Your task to perform on an android device: Open internet settings Image 0: 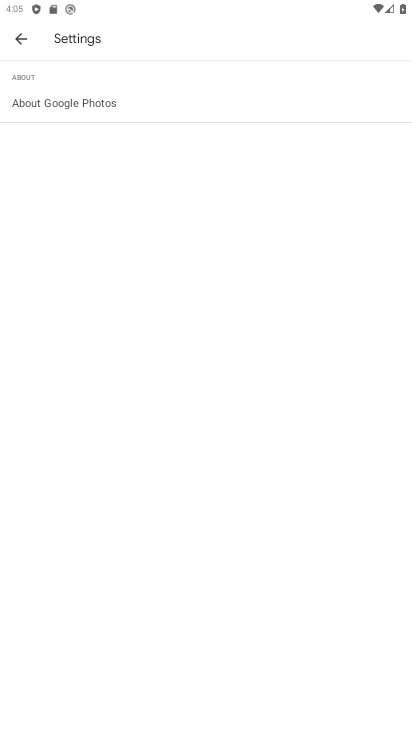
Step 0: press home button
Your task to perform on an android device: Open internet settings Image 1: 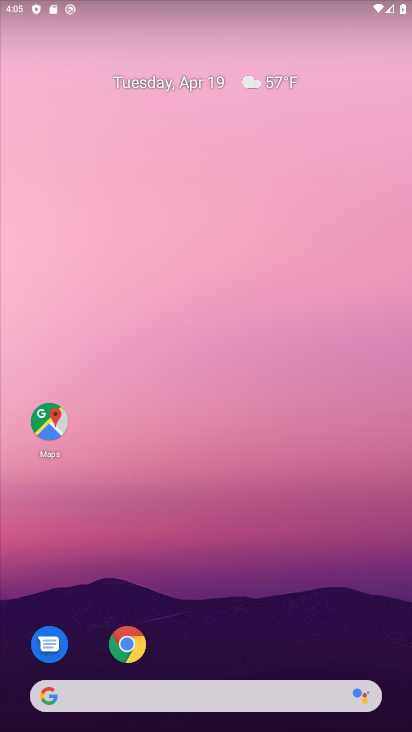
Step 1: drag from (332, 457) to (342, 69)
Your task to perform on an android device: Open internet settings Image 2: 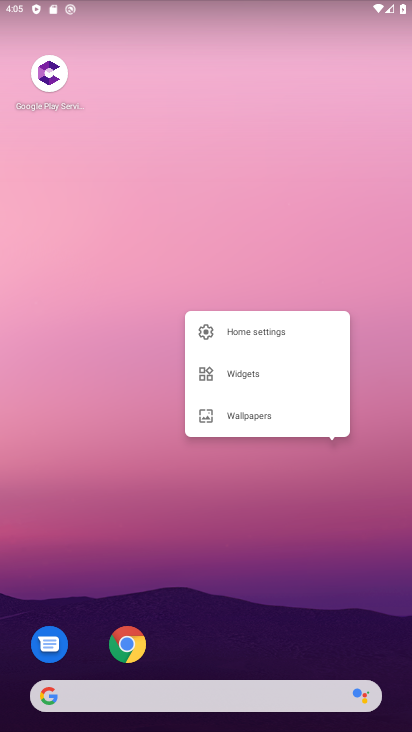
Step 2: click (320, 546)
Your task to perform on an android device: Open internet settings Image 3: 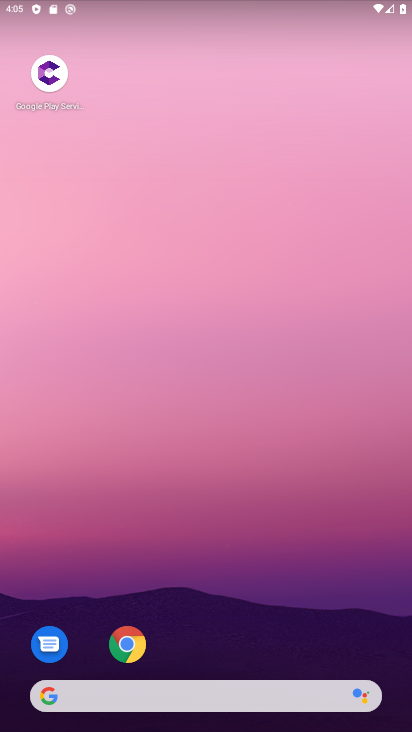
Step 3: click (389, 148)
Your task to perform on an android device: Open internet settings Image 4: 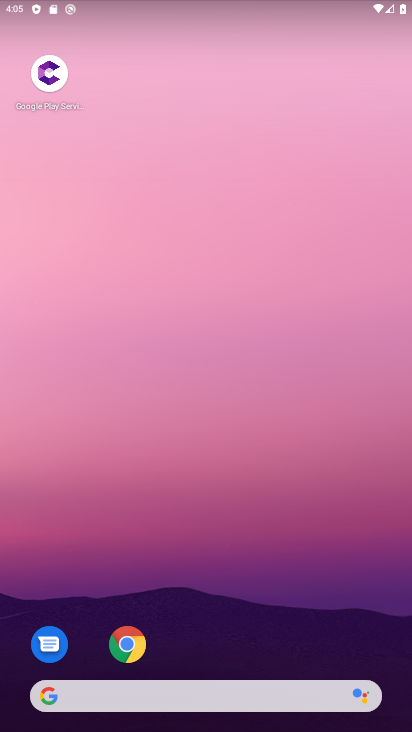
Step 4: click (330, 99)
Your task to perform on an android device: Open internet settings Image 5: 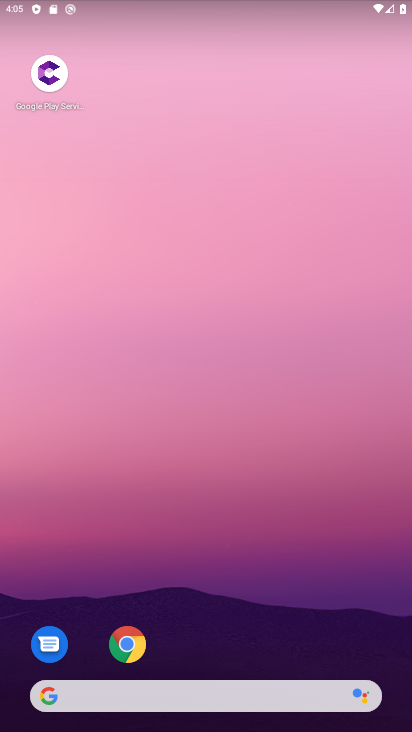
Step 5: drag from (299, 441) to (263, 28)
Your task to perform on an android device: Open internet settings Image 6: 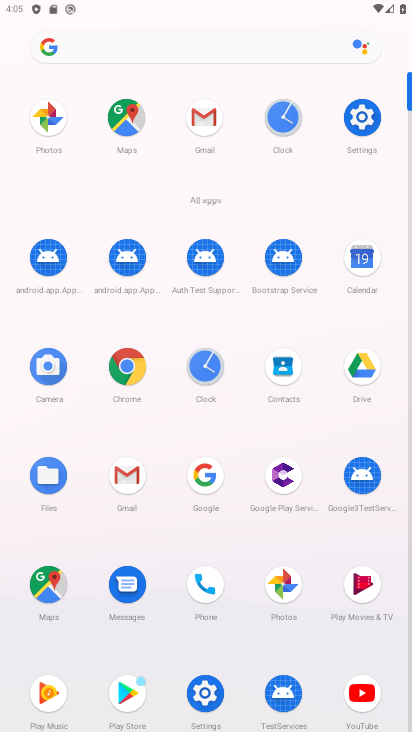
Step 6: click (366, 123)
Your task to perform on an android device: Open internet settings Image 7: 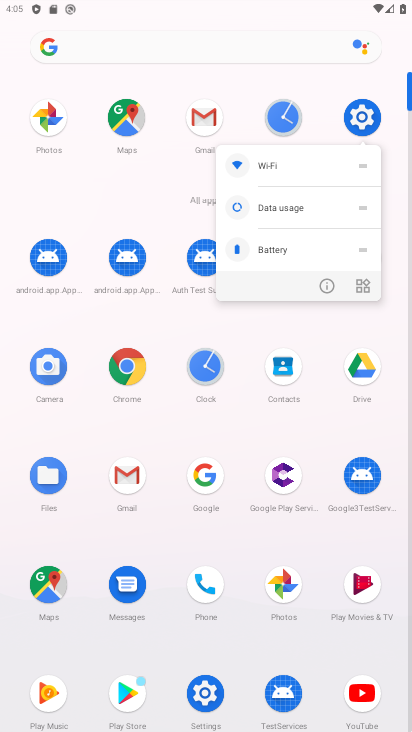
Step 7: click (365, 117)
Your task to perform on an android device: Open internet settings Image 8: 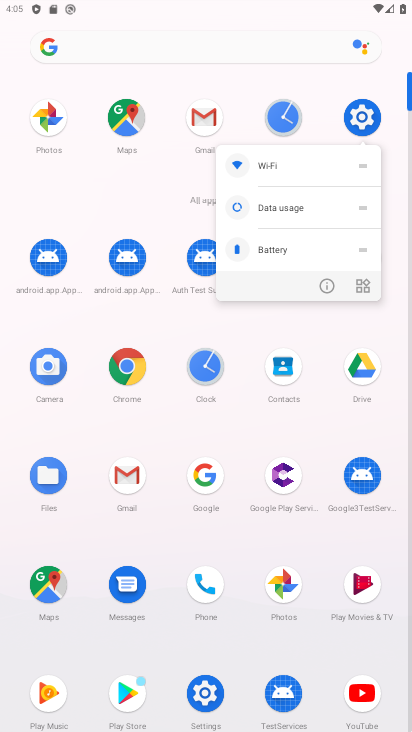
Step 8: click (365, 117)
Your task to perform on an android device: Open internet settings Image 9: 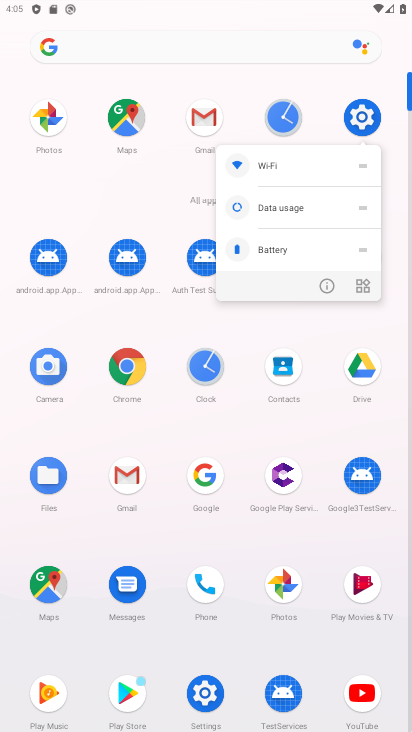
Step 9: click (359, 114)
Your task to perform on an android device: Open internet settings Image 10: 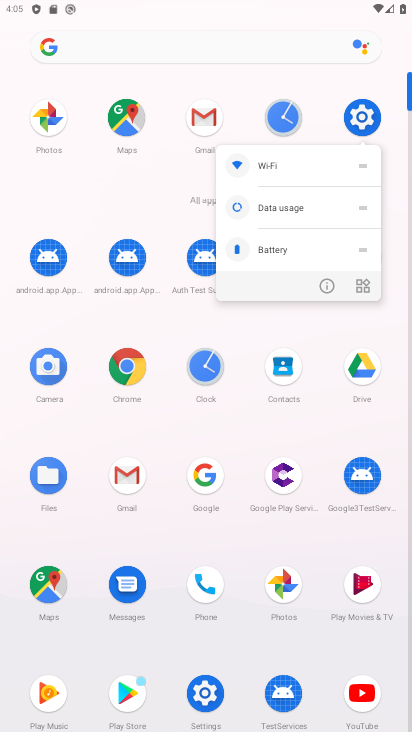
Step 10: click (359, 114)
Your task to perform on an android device: Open internet settings Image 11: 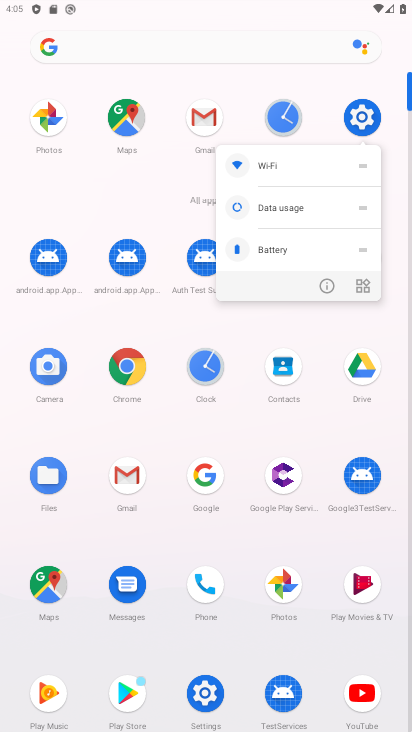
Step 11: click (361, 133)
Your task to perform on an android device: Open internet settings Image 12: 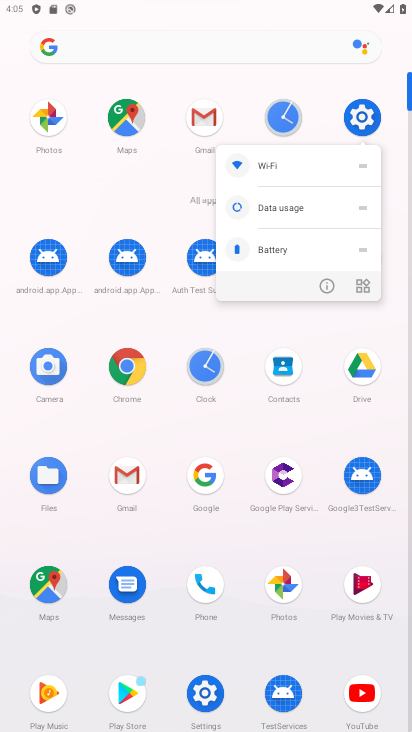
Step 12: click (359, 124)
Your task to perform on an android device: Open internet settings Image 13: 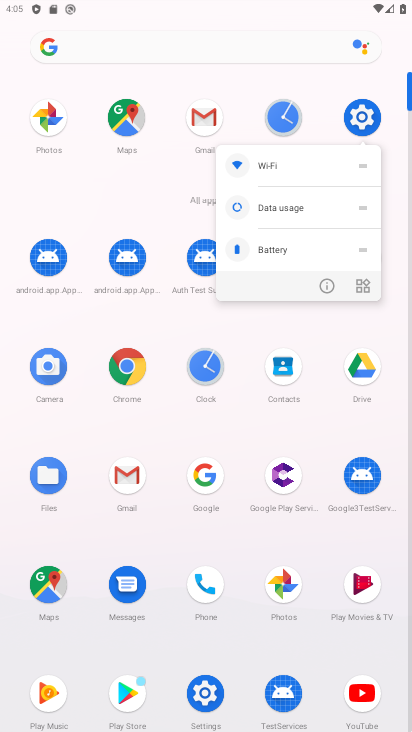
Step 13: click (359, 122)
Your task to perform on an android device: Open internet settings Image 14: 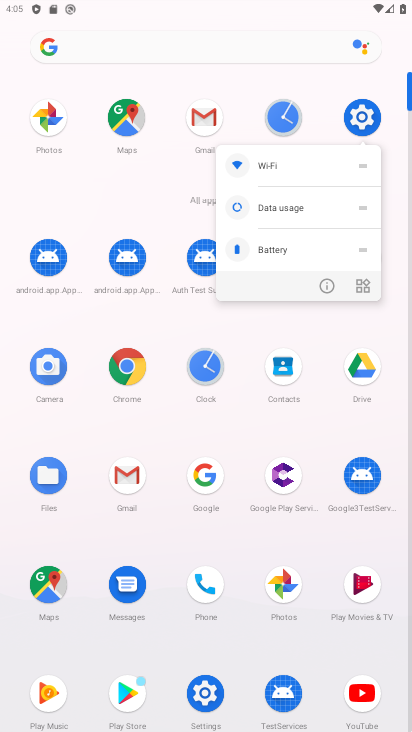
Step 14: click (359, 121)
Your task to perform on an android device: Open internet settings Image 15: 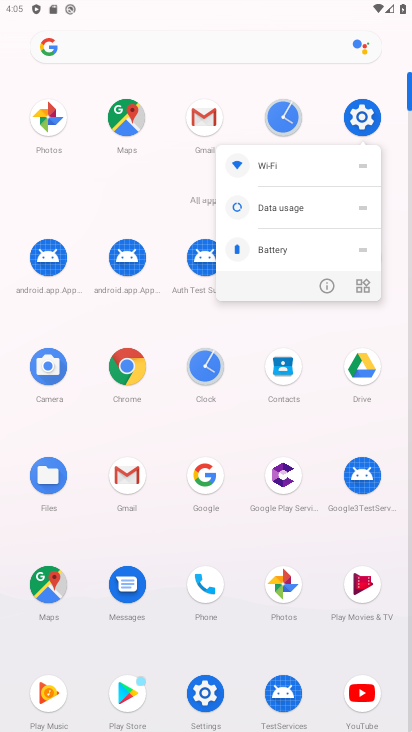
Step 15: click (366, 112)
Your task to perform on an android device: Open internet settings Image 16: 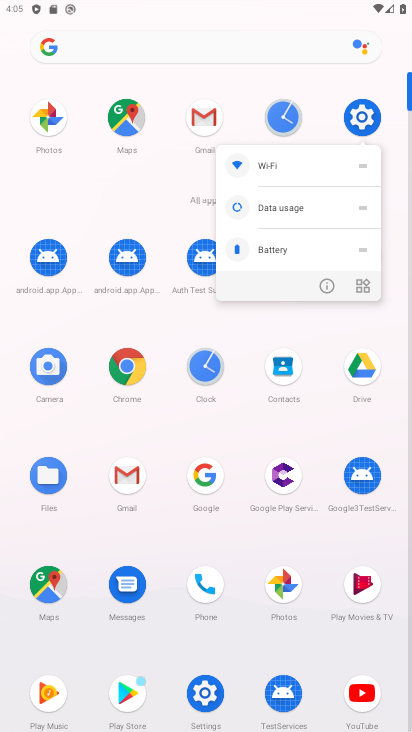
Step 16: click (367, 111)
Your task to perform on an android device: Open internet settings Image 17: 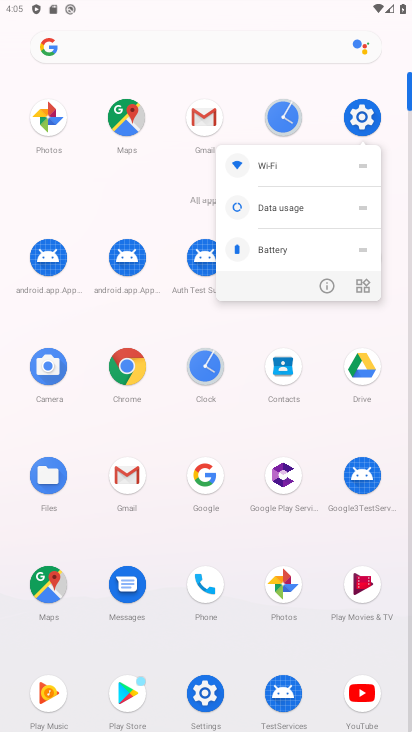
Step 17: click (364, 115)
Your task to perform on an android device: Open internet settings Image 18: 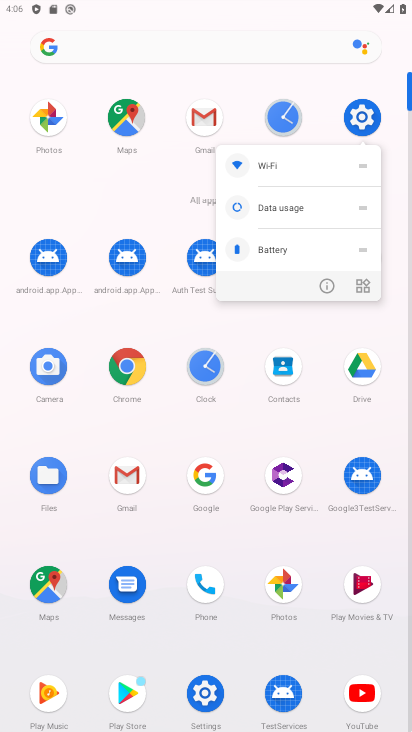
Step 18: click (365, 115)
Your task to perform on an android device: Open internet settings Image 19: 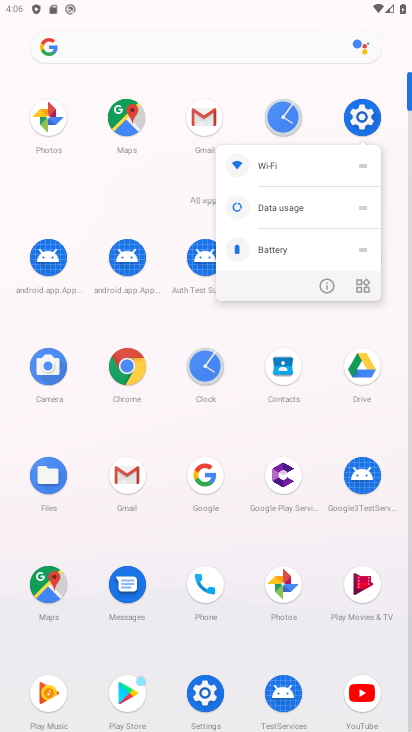
Step 19: click (366, 113)
Your task to perform on an android device: Open internet settings Image 20: 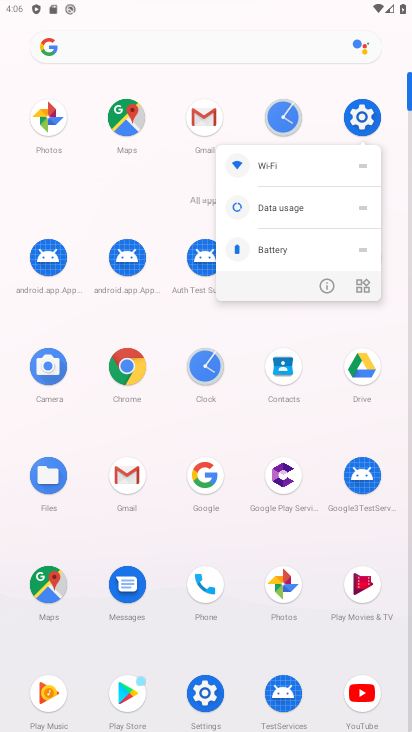
Step 20: click (360, 120)
Your task to perform on an android device: Open internet settings Image 21: 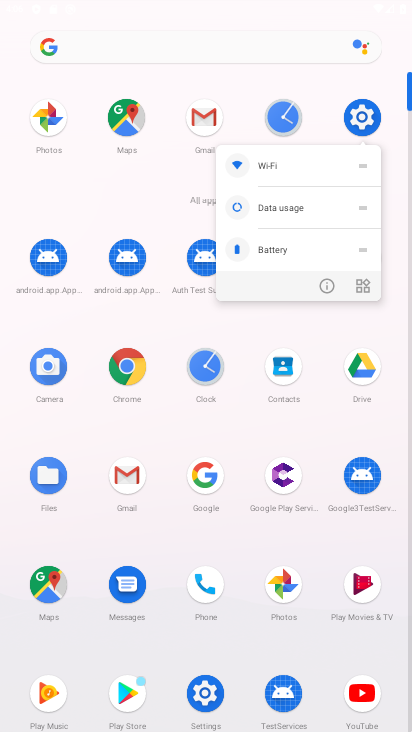
Step 21: click (360, 111)
Your task to perform on an android device: Open internet settings Image 22: 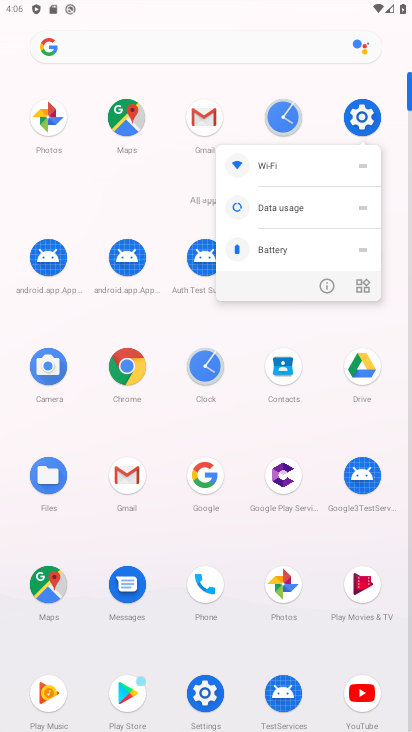
Step 22: click (360, 110)
Your task to perform on an android device: Open internet settings Image 23: 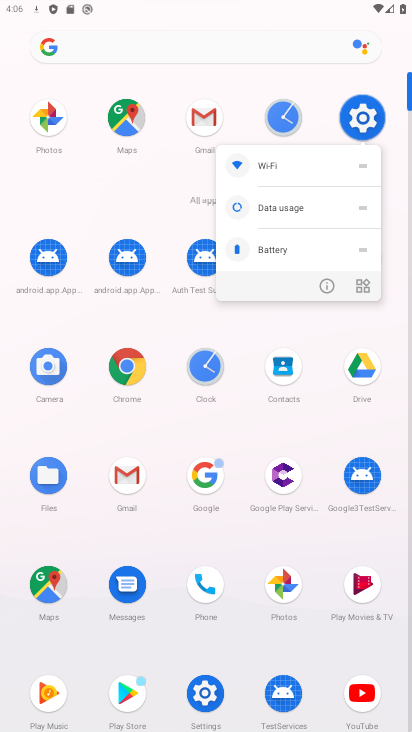
Step 23: click (360, 109)
Your task to perform on an android device: Open internet settings Image 24: 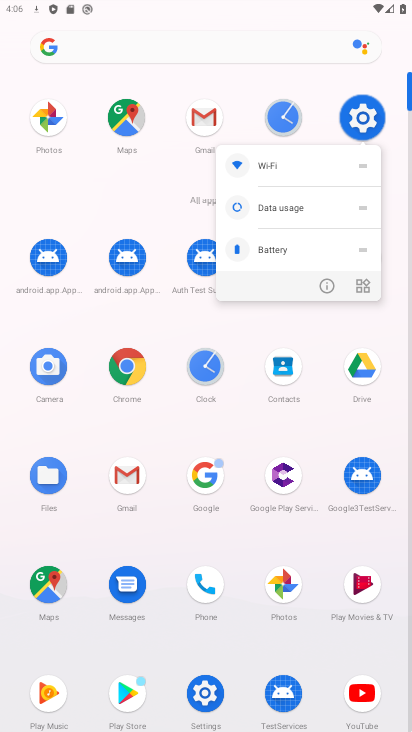
Step 24: click (360, 108)
Your task to perform on an android device: Open internet settings Image 25: 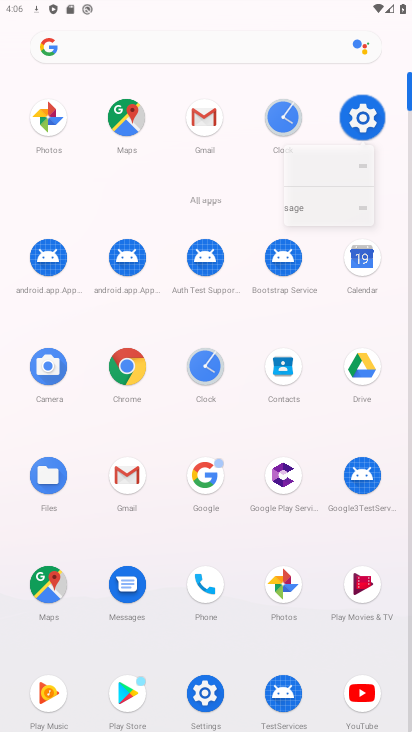
Step 25: click (360, 109)
Your task to perform on an android device: Open internet settings Image 26: 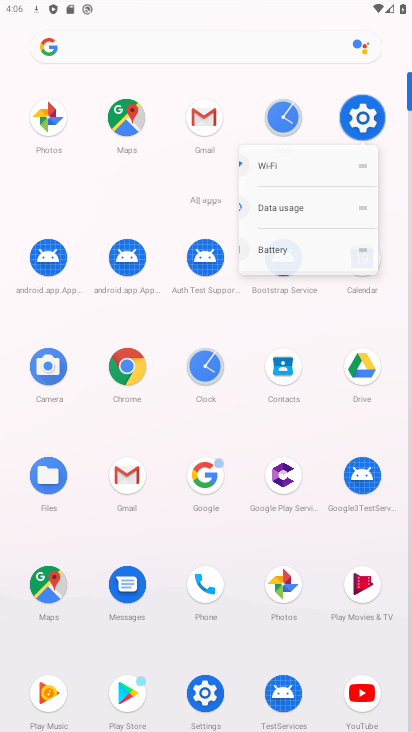
Step 26: click (361, 109)
Your task to perform on an android device: Open internet settings Image 27: 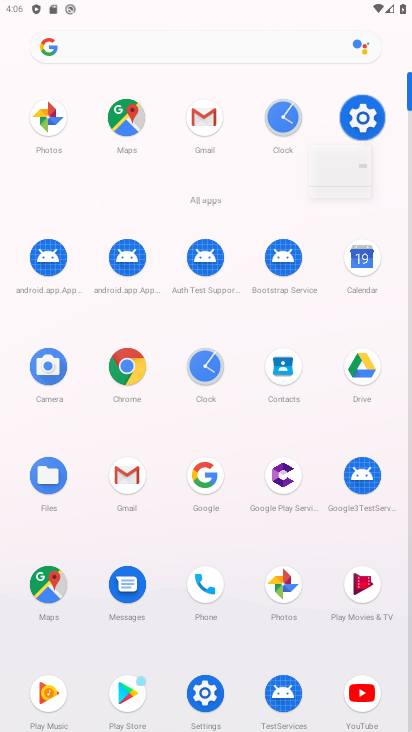
Step 27: click (361, 110)
Your task to perform on an android device: Open internet settings Image 28: 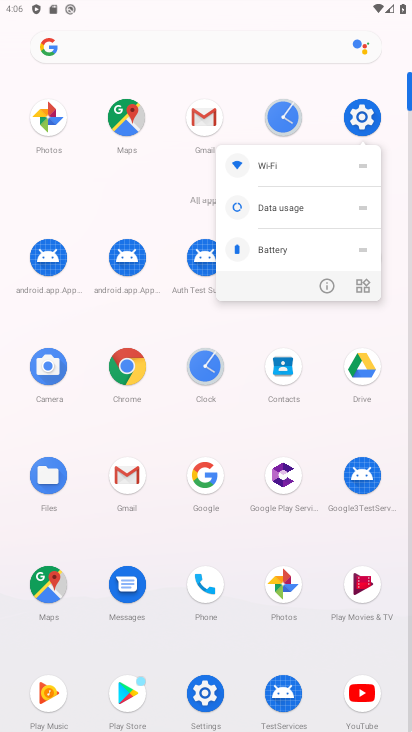
Step 28: click (361, 110)
Your task to perform on an android device: Open internet settings Image 29: 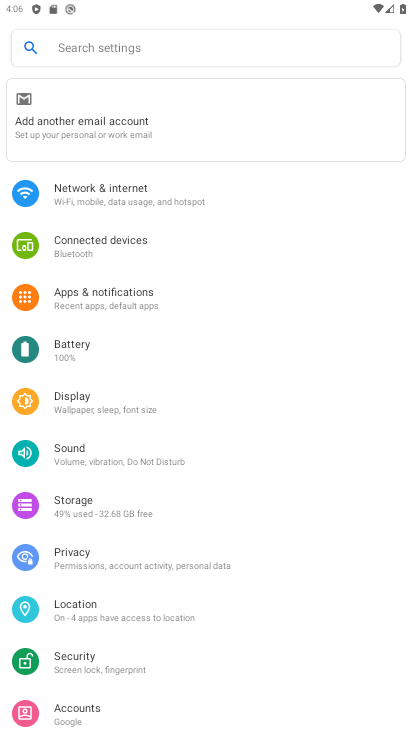
Step 29: click (77, 192)
Your task to perform on an android device: Open internet settings Image 30: 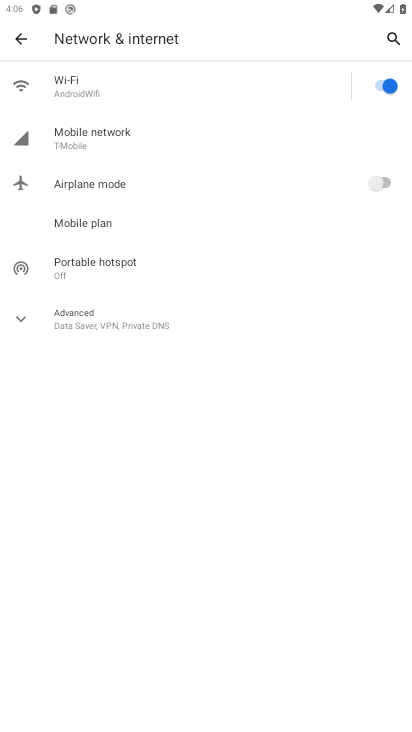
Step 30: click (91, 144)
Your task to perform on an android device: Open internet settings Image 31: 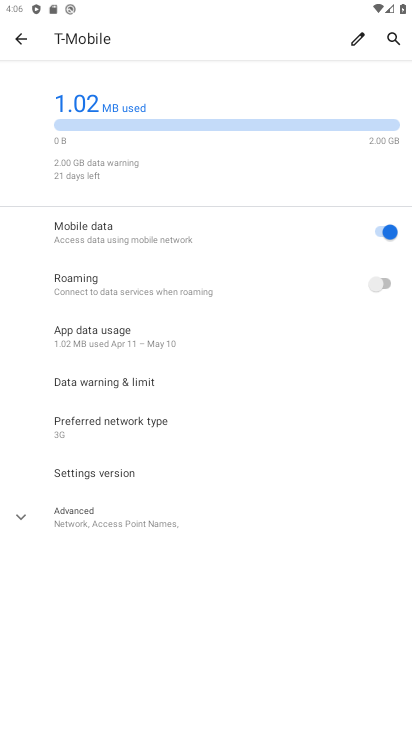
Step 31: click (204, 142)
Your task to perform on an android device: Open internet settings Image 32: 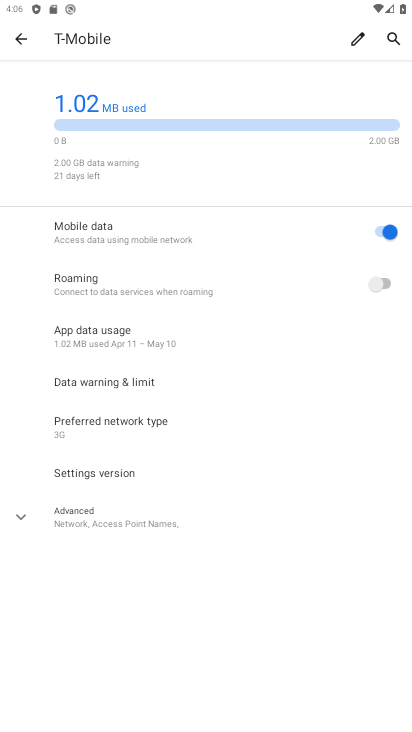
Step 32: task complete